Your task to perform on an android device: turn off wifi Image 0: 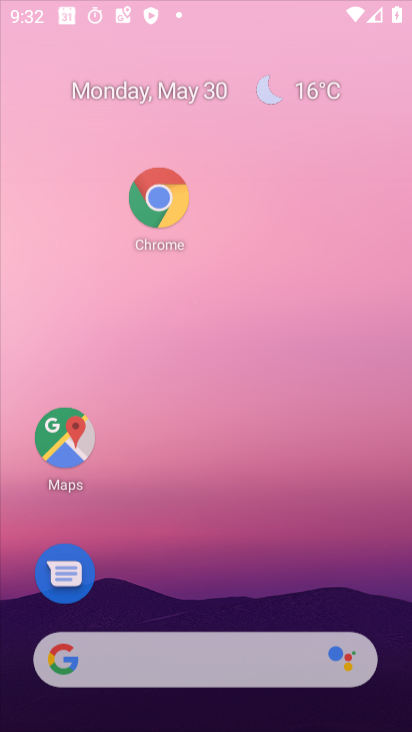
Step 0: click (332, 195)
Your task to perform on an android device: turn off wifi Image 1: 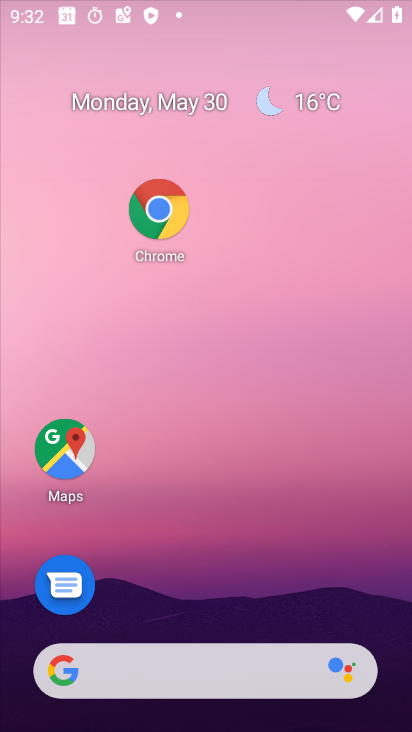
Step 1: drag from (199, 593) to (299, 169)
Your task to perform on an android device: turn off wifi Image 2: 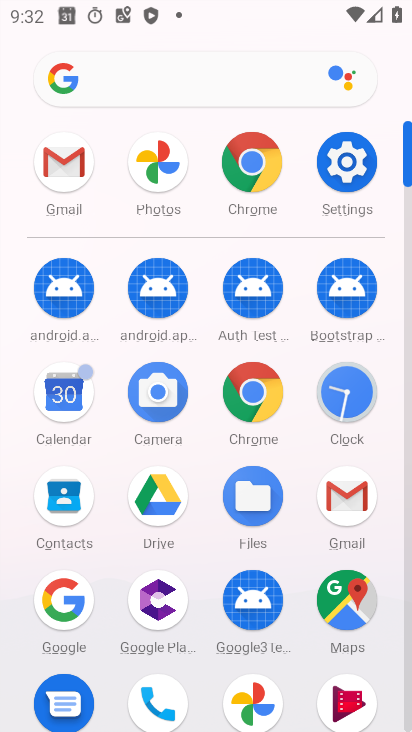
Step 2: click (330, 164)
Your task to perform on an android device: turn off wifi Image 3: 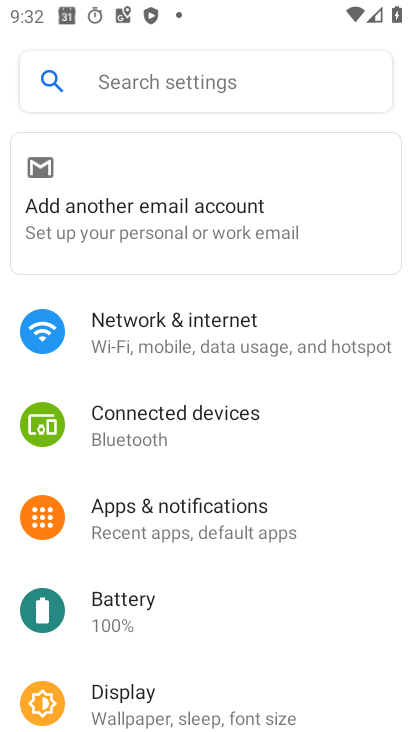
Step 3: click (119, 343)
Your task to perform on an android device: turn off wifi Image 4: 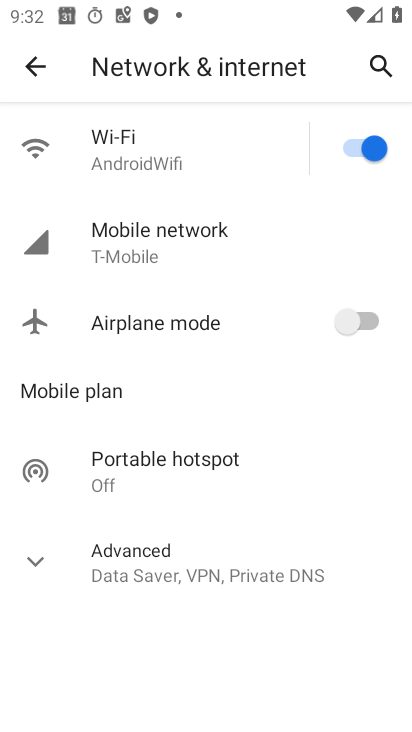
Step 4: click (181, 159)
Your task to perform on an android device: turn off wifi Image 5: 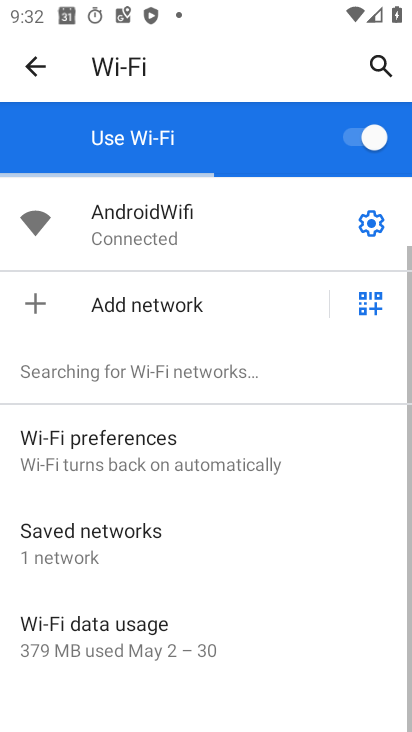
Step 5: click (361, 132)
Your task to perform on an android device: turn off wifi Image 6: 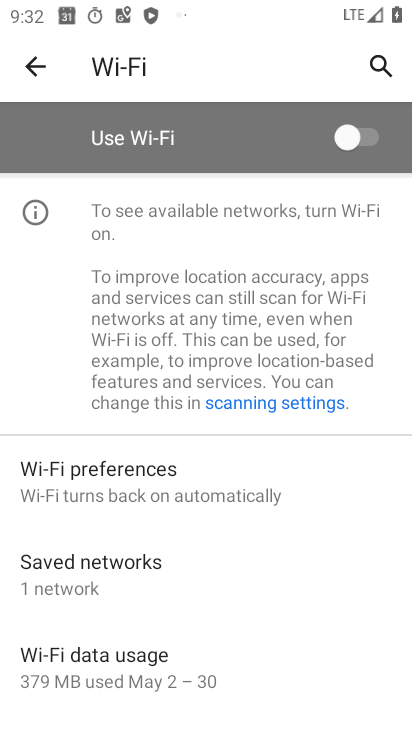
Step 6: task complete